Your task to perform on an android device: toggle location history Image 0: 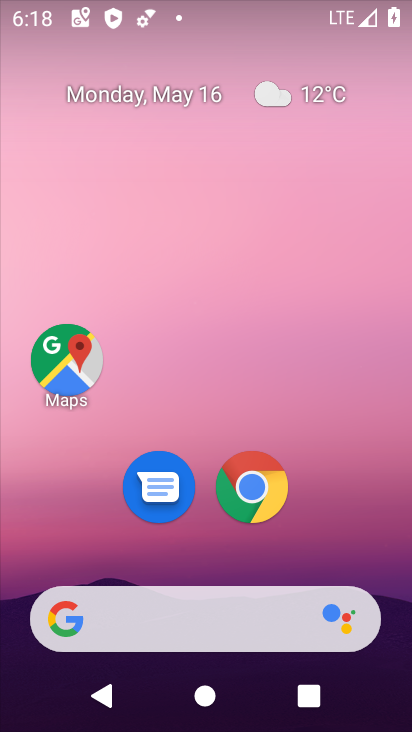
Step 0: drag from (302, 549) to (291, 211)
Your task to perform on an android device: toggle location history Image 1: 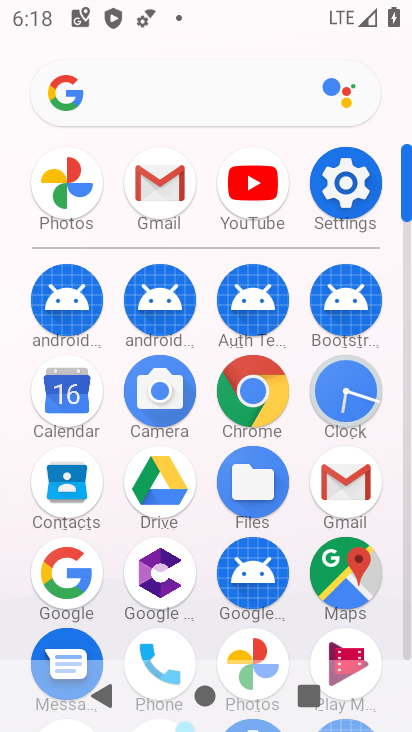
Step 1: drag from (73, 566) to (7, 532)
Your task to perform on an android device: toggle location history Image 2: 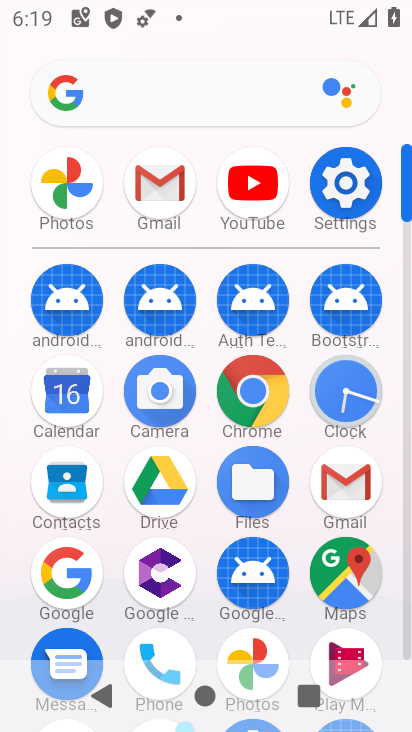
Step 2: click (343, 186)
Your task to perform on an android device: toggle location history Image 3: 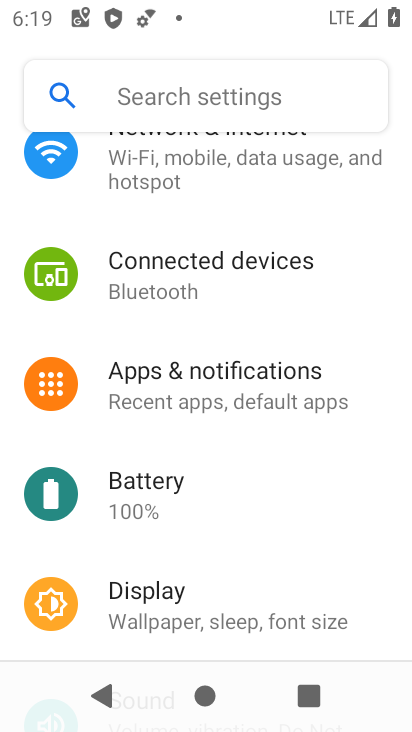
Step 3: drag from (181, 604) to (227, 197)
Your task to perform on an android device: toggle location history Image 4: 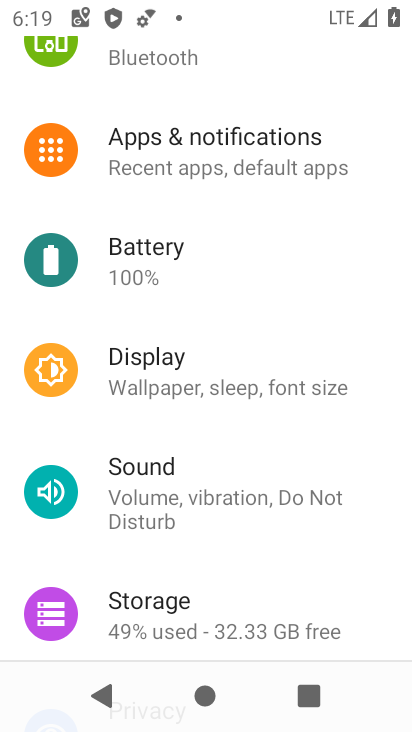
Step 4: drag from (280, 598) to (280, 148)
Your task to perform on an android device: toggle location history Image 5: 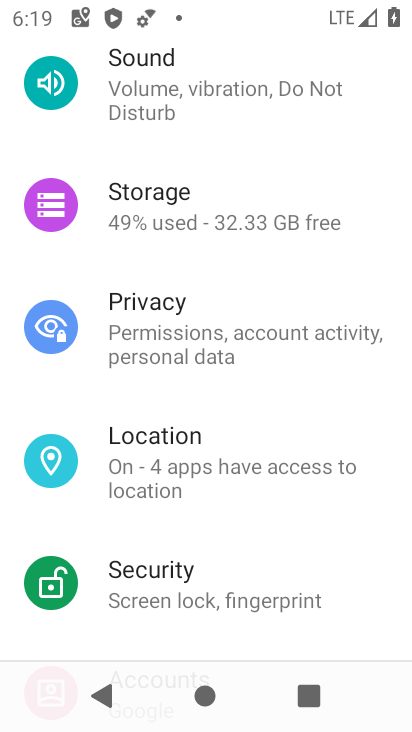
Step 5: click (166, 456)
Your task to perform on an android device: toggle location history Image 6: 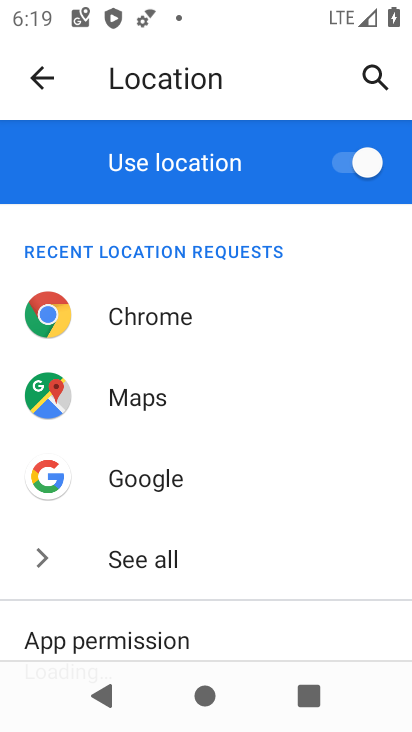
Step 6: drag from (232, 489) to (295, 38)
Your task to perform on an android device: toggle location history Image 7: 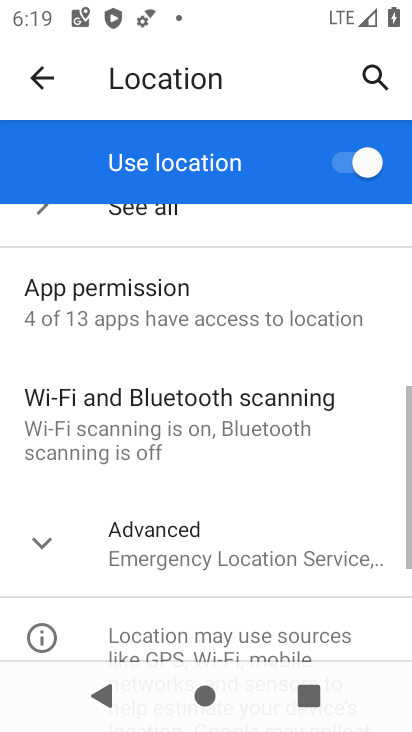
Step 7: click (238, 543)
Your task to perform on an android device: toggle location history Image 8: 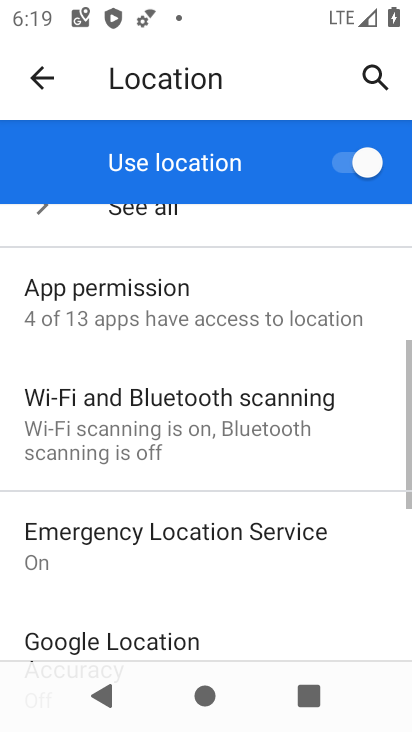
Step 8: drag from (263, 579) to (262, 155)
Your task to perform on an android device: toggle location history Image 9: 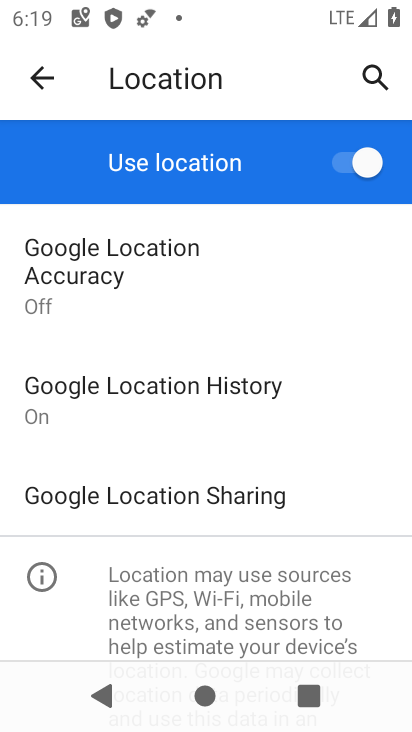
Step 9: click (178, 383)
Your task to perform on an android device: toggle location history Image 10: 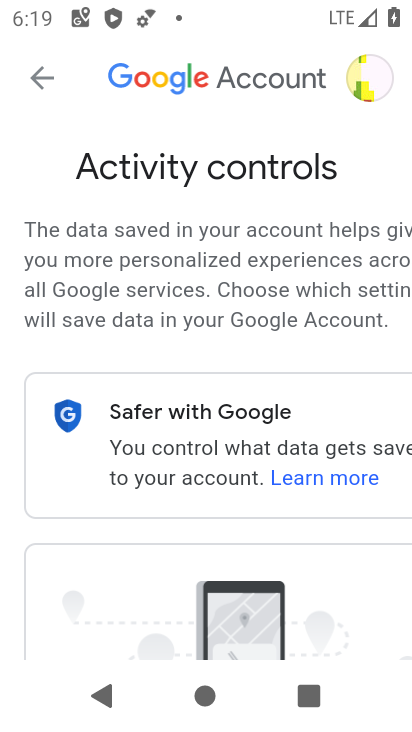
Step 10: drag from (276, 577) to (226, 0)
Your task to perform on an android device: toggle location history Image 11: 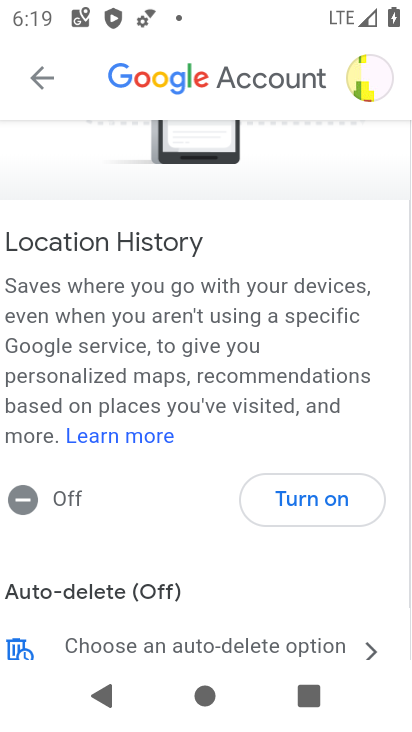
Step 11: click (303, 496)
Your task to perform on an android device: toggle location history Image 12: 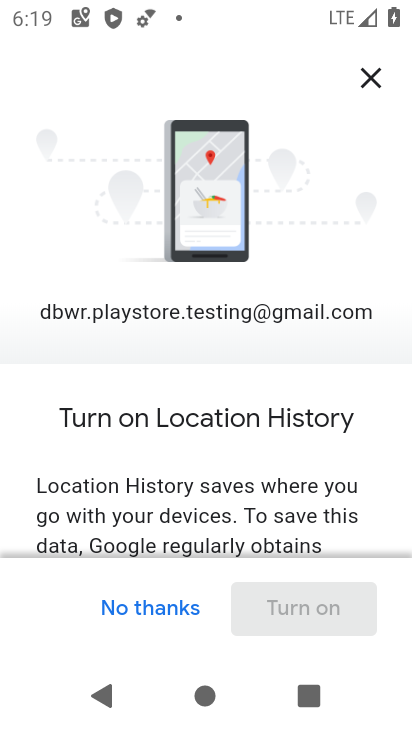
Step 12: drag from (276, 493) to (277, 5)
Your task to perform on an android device: toggle location history Image 13: 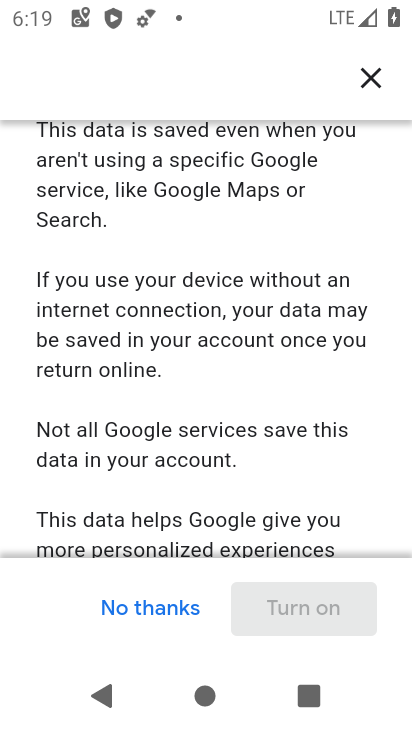
Step 13: drag from (294, 432) to (281, 23)
Your task to perform on an android device: toggle location history Image 14: 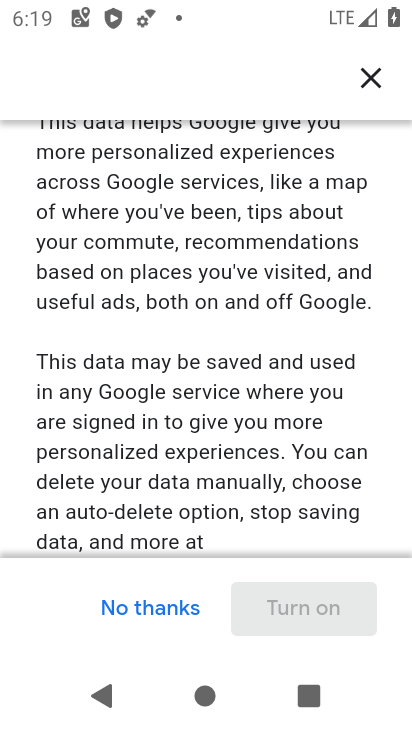
Step 14: drag from (278, 493) to (283, 100)
Your task to perform on an android device: toggle location history Image 15: 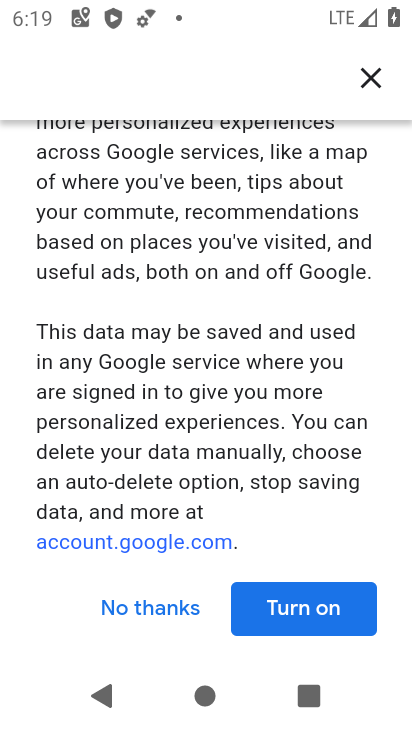
Step 15: click (291, 600)
Your task to perform on an android device: toggle location history Image 16: 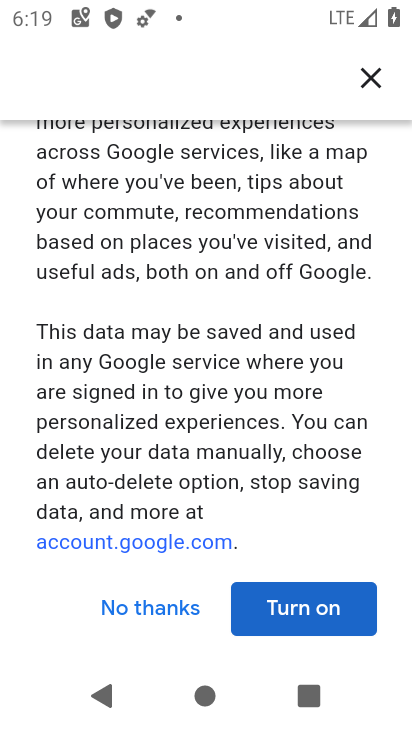
Step 16: click (312, 606)
Your task to perform on an android device: toggle location history Image 17: 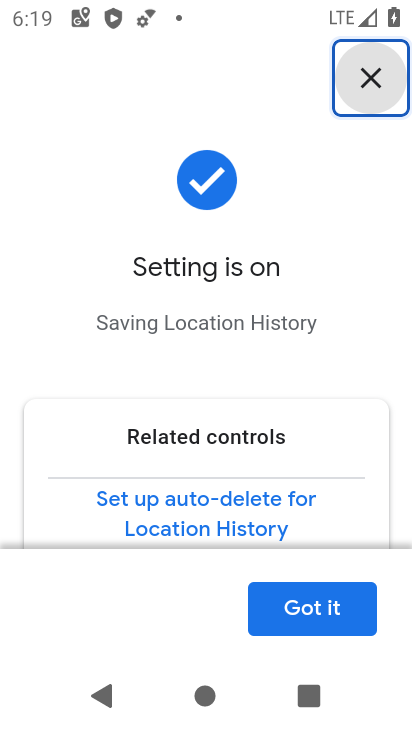
Step 17: task complete